Your task to perform on an android device: check the backup settings in the google photos Image 0: 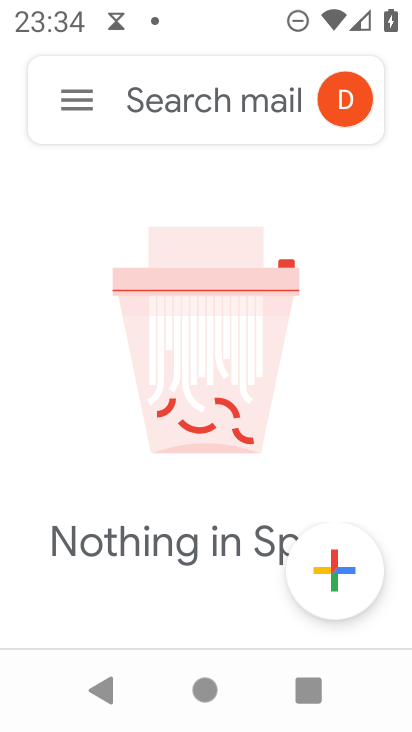
Step 0: press home button
Your task to perform on an android device: check the backup settings in the google photos Image 1: 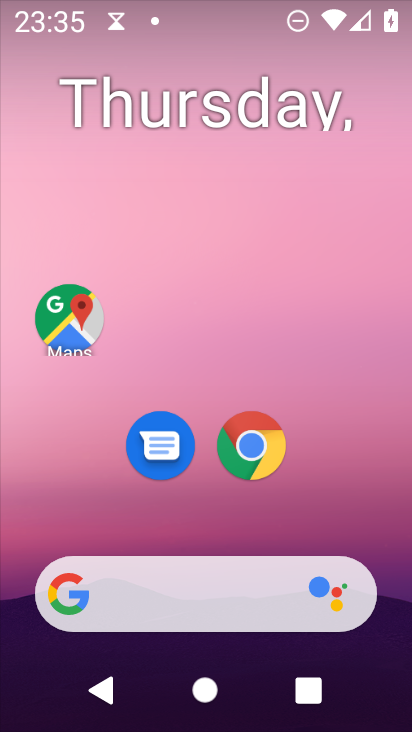
Step 1: drag from (228, 723) to (237, 61)
Your task to perform on an android device: check the backup settings in the google photos Image 2: 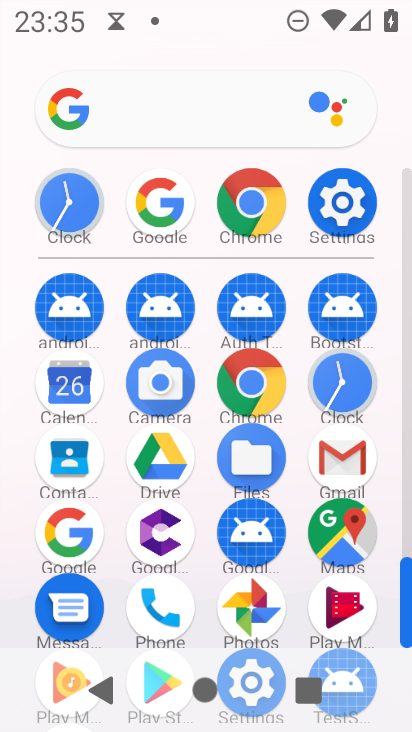
Step 2: click (248, 605)
Your task to perform on an android device: check the backup settings in the google photos Image 3: 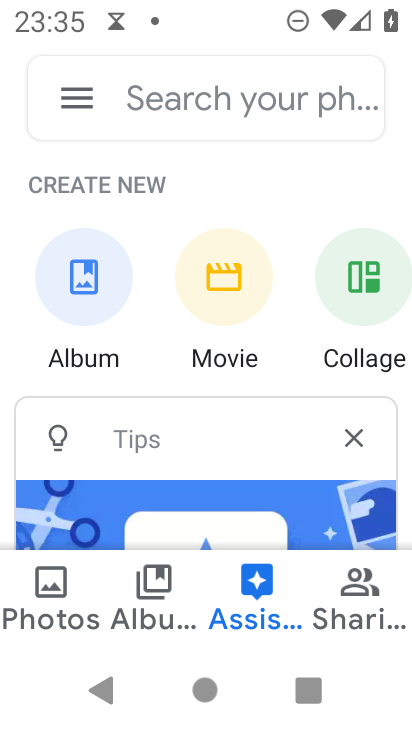
Step 3: click (69, 86)
Your task to perform on an android device: check the backup settings in the google photos Image 4: 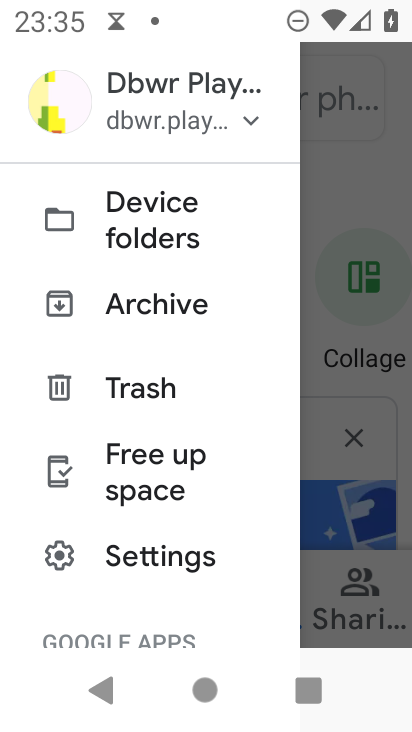
Step 4: click (149, 544)
Your task to perform on an android device: check the backup settings in the google photos Image 5: 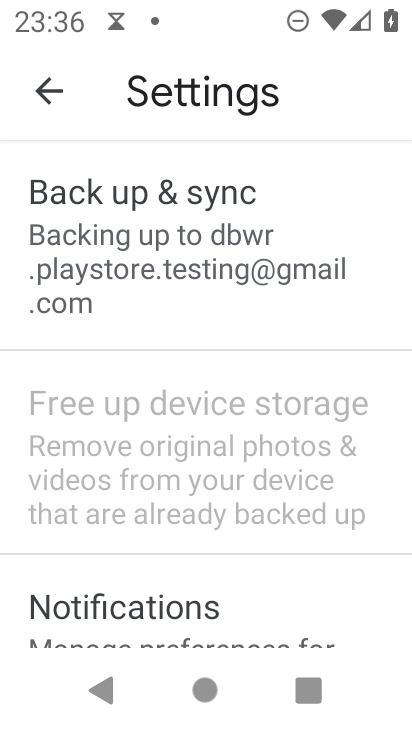
Step 5: click (179, 227)
Your task to perform on an android device: check the backup settings in the google photos Image 6: 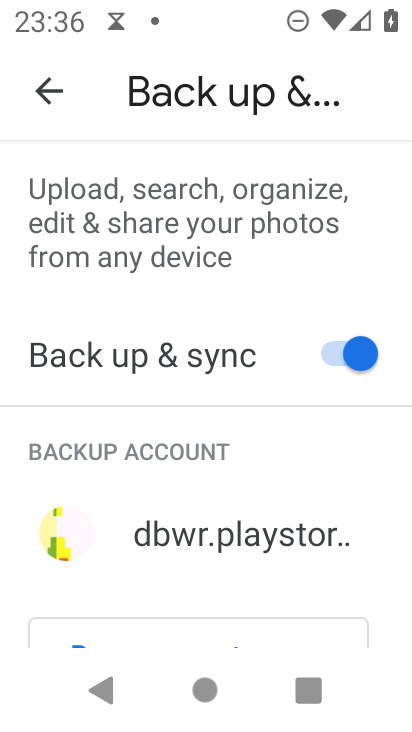
Step 6: task complete